Your task to perform on an android device: change the clock style Image 0: 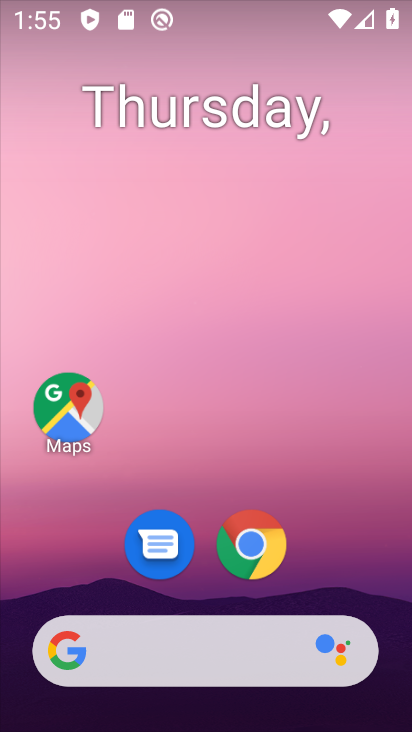
Step 0: drag from (323, 603) to (101, 129)
Your task to perform on an android device: change the clock style Image 1: 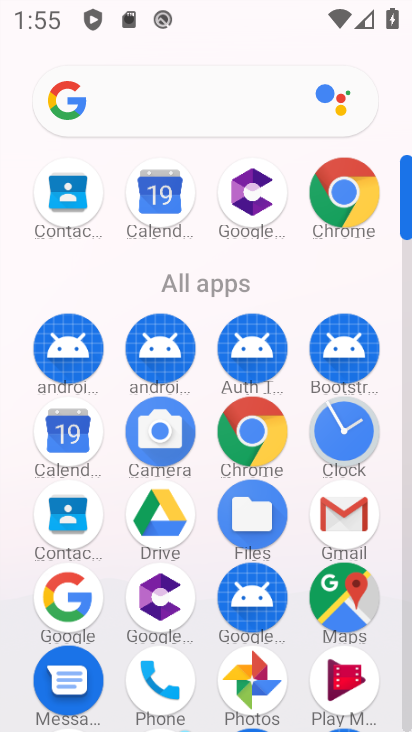
Step 1: click (348, 442)
Your task to perform on an android device: change the clock style Image 2: 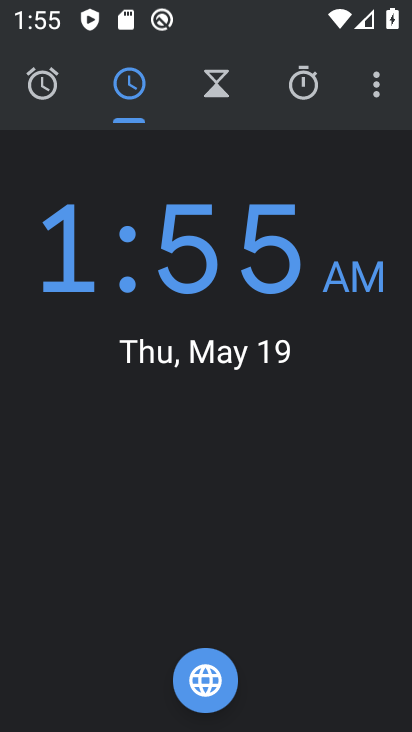
Step 2: click (374, 88)
Your task to perform on an android device: change the clock style Image 3: 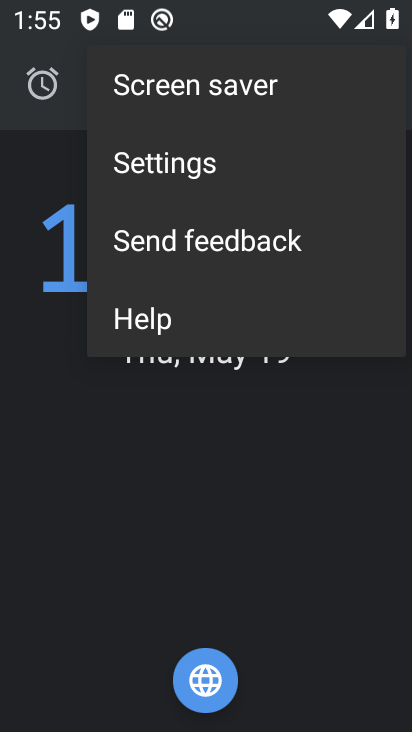
Step 3: click (179, 168)
Your task to perform on an android device: change the clock style Image 4: 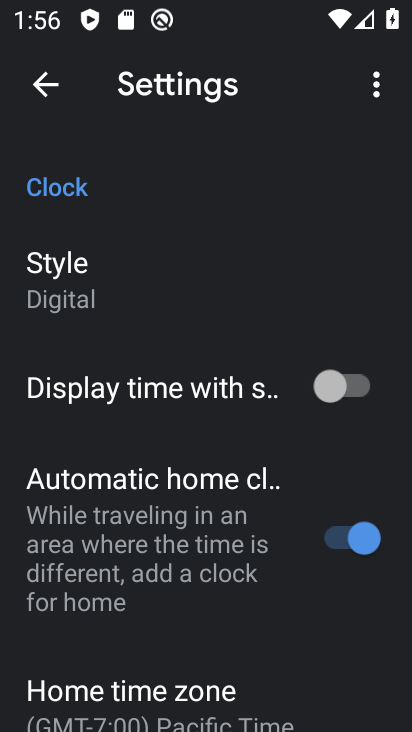
Step 4: click (83, 298)
Your task to perform on an android device: change the clock style Image 5: 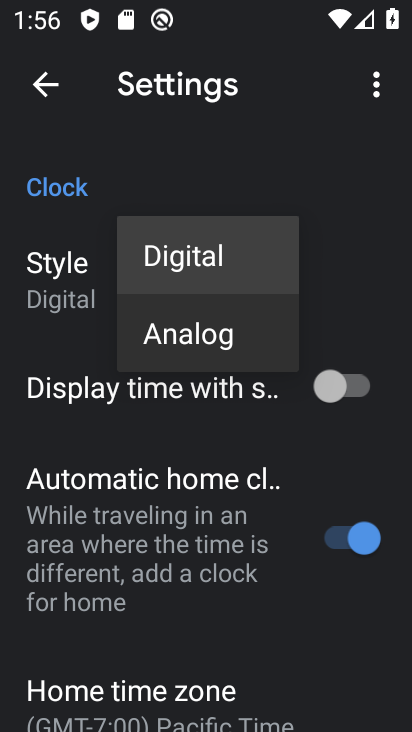
Step 5: click (187, 343)
Your task to perform on an android device: change the clock style Image 6: 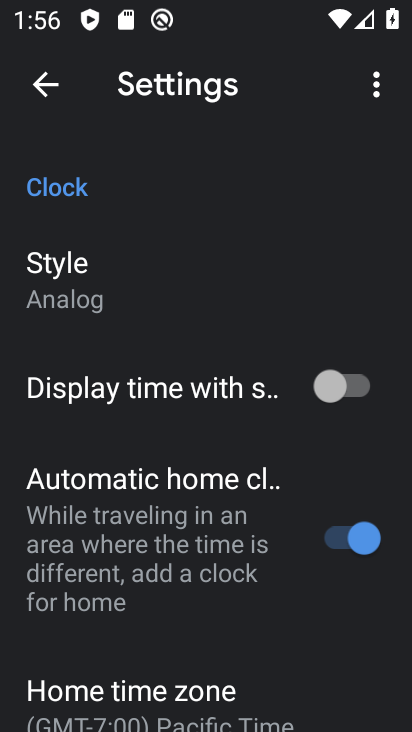
Step 6: task complete